Your task to perform on an android device: open app "Google Translate" (install if not already installed) Image 0: 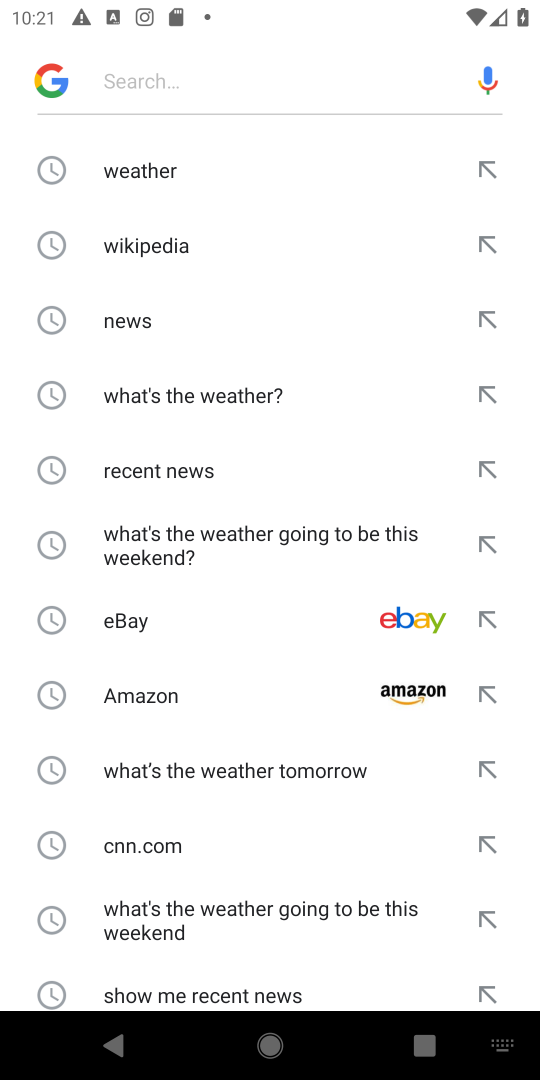
Step 0: press home button
Your task to perform on an android device: open app "Google Translate" (install if not already installed) Image 1: 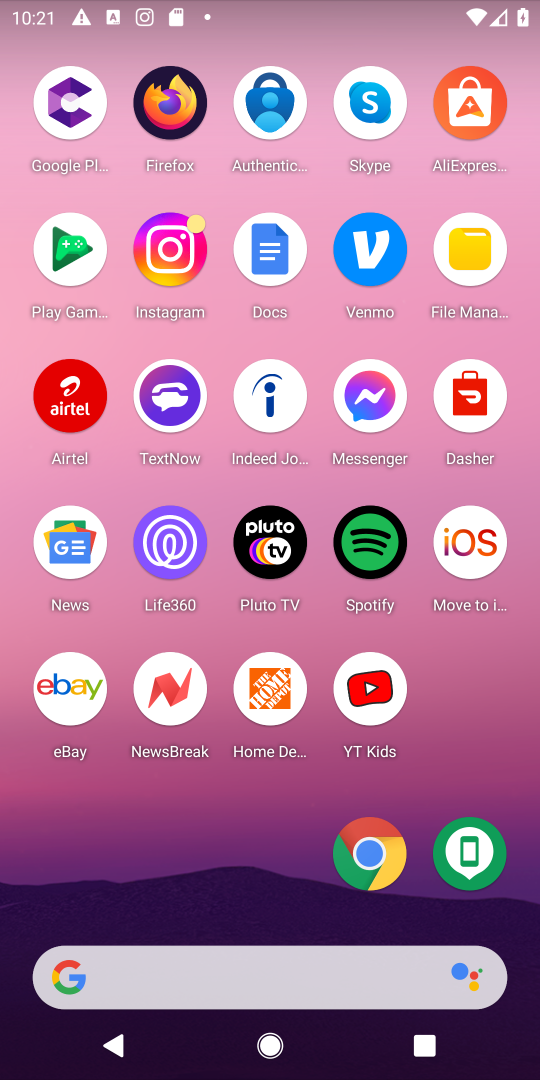
Step 1: drag from (221, 317) to (221, 100)
Your task to perform on an android device: open app "Google Translate" (install if not already installed) Image 2: 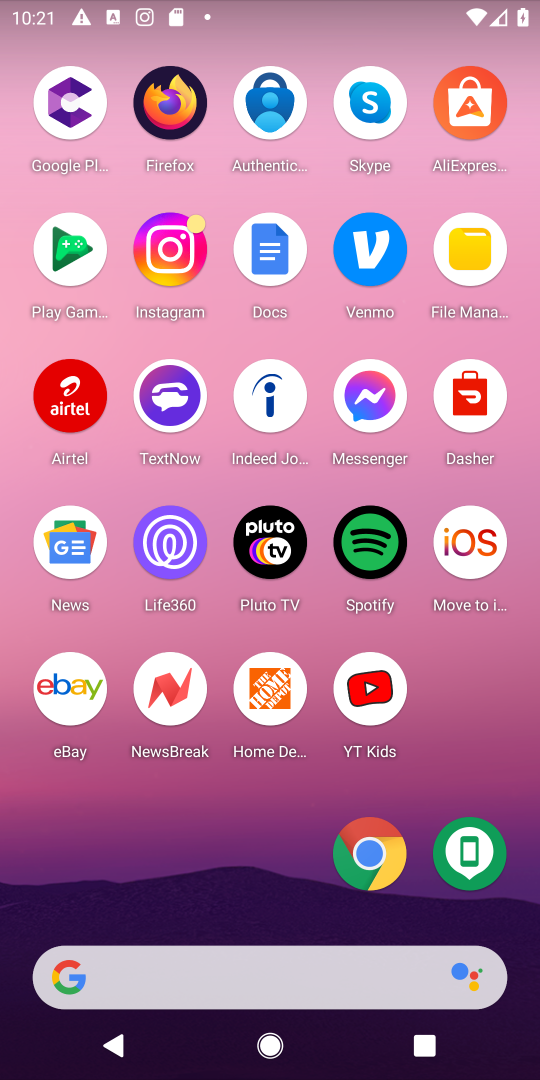
Step 2: drag from (192, 526) to (196, 118)
Your task to perform on an android device: open app "Google Translate" (install if not already installed) Image 3: 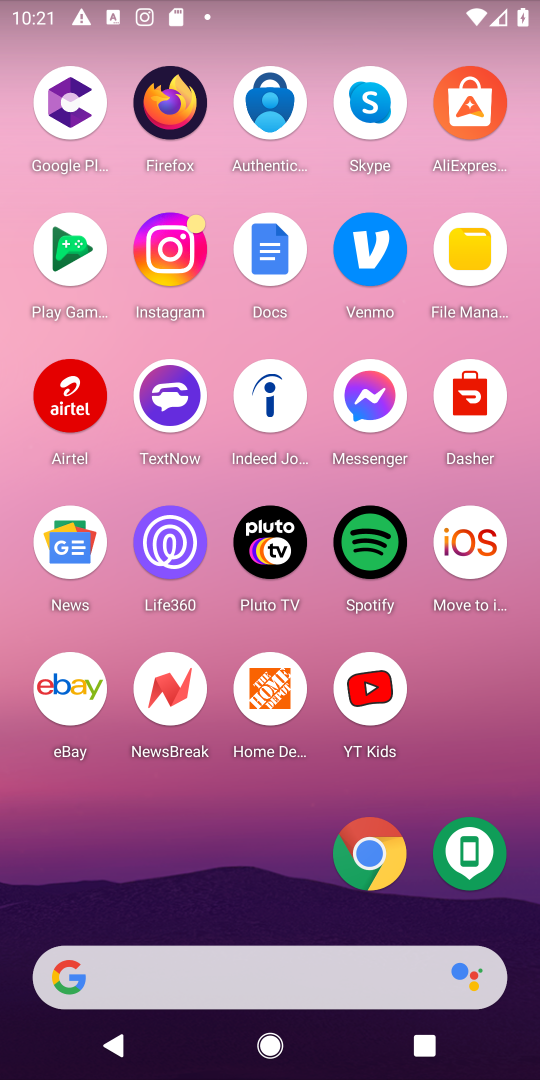
Step 3: drag from (216, 827) to (205, 109)
Your task to perform on an android device: open app "Google Translate" (install if not already installed) Image 4: 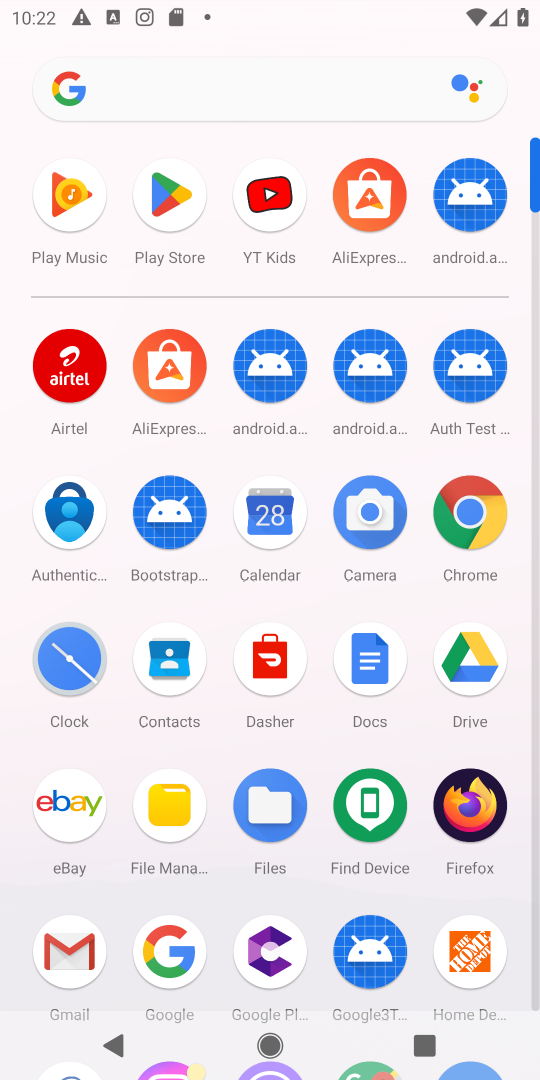
Step 4: click (174, 203)
Your task to perform on an android device: open app "Google Translate" (install if not already installed) Image 5: 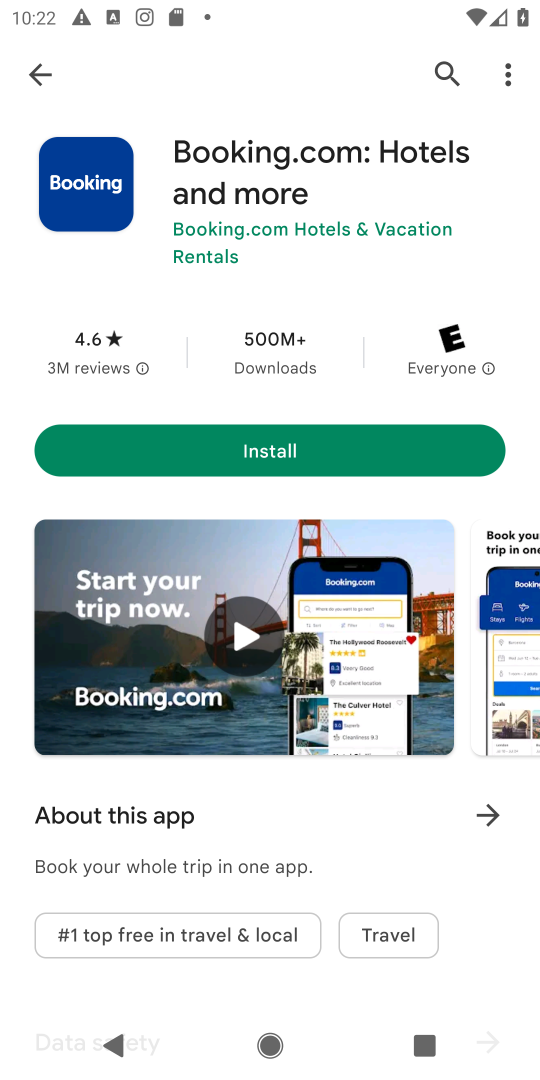
Step 5: click (35, 72)
Your task to perform on an android device: open app "Google Translate" (install if not already installed) Image 6: 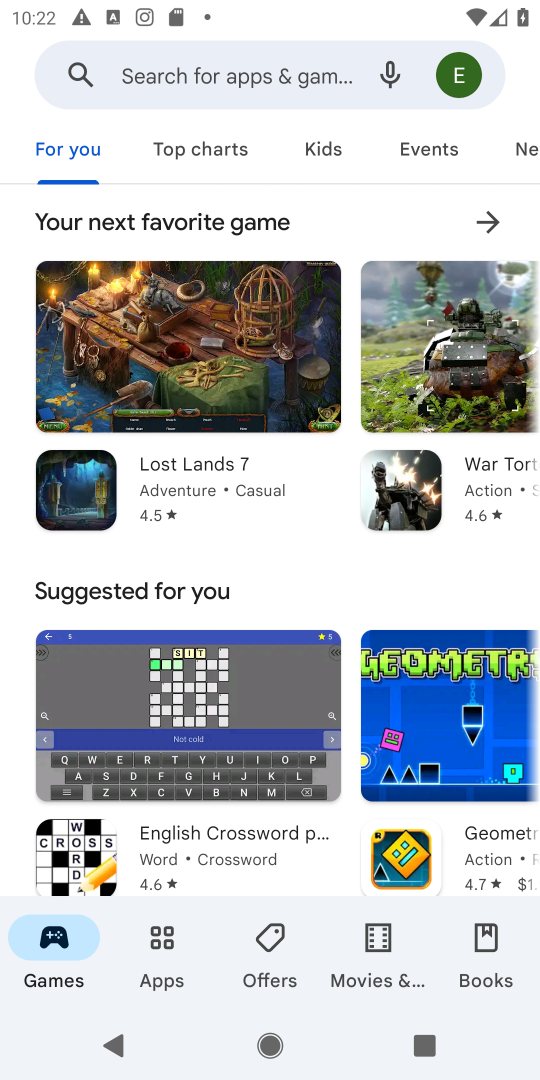
Step 6: click (240, 64)
Your task to perform on an android device: open app "Google Translate" (install if not already installed) Image 7: 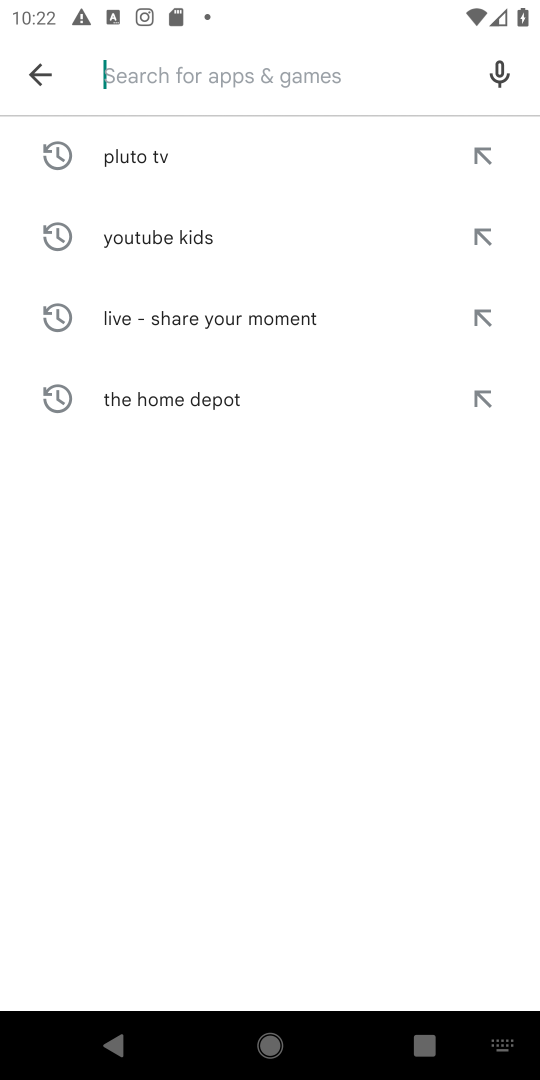
Step 7: type "Google Translate"
Your task to perform on an android device: open app "Google Translate" (install if not already installed) Image 8: 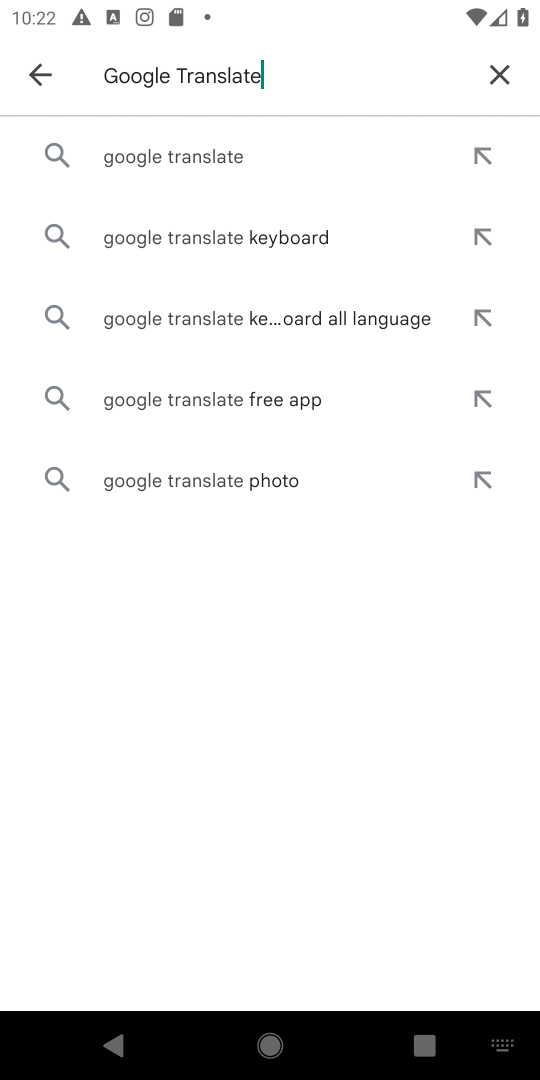
Step 8: click (180, 156)
Your task to perform on an android device: open app "Google Translate" (install if not already installed) Image 9: 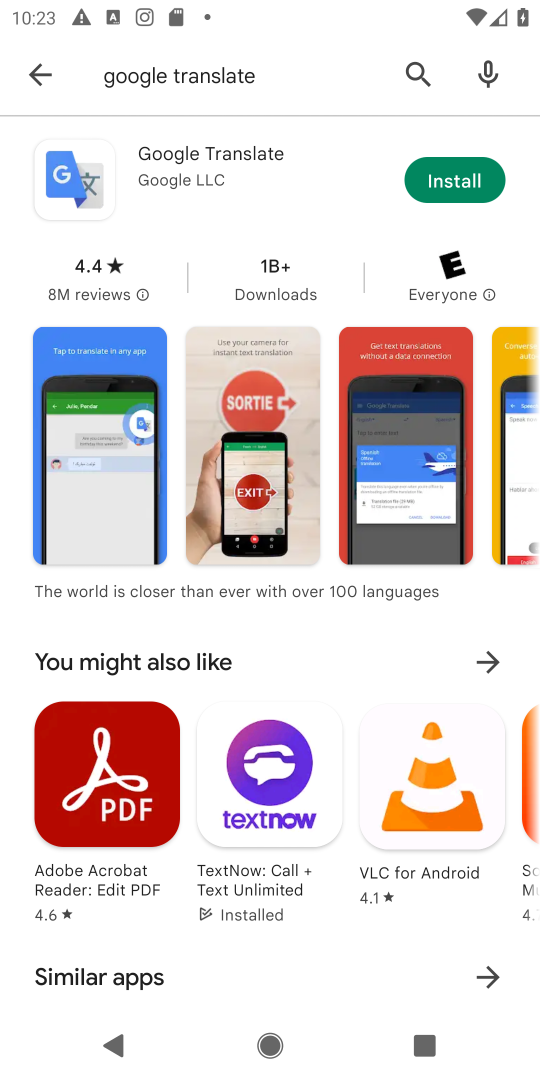
Step 9: click (444, 188)
Your task to perform on an android device: open app "Google Translate" (install if not already installed) Image 10: 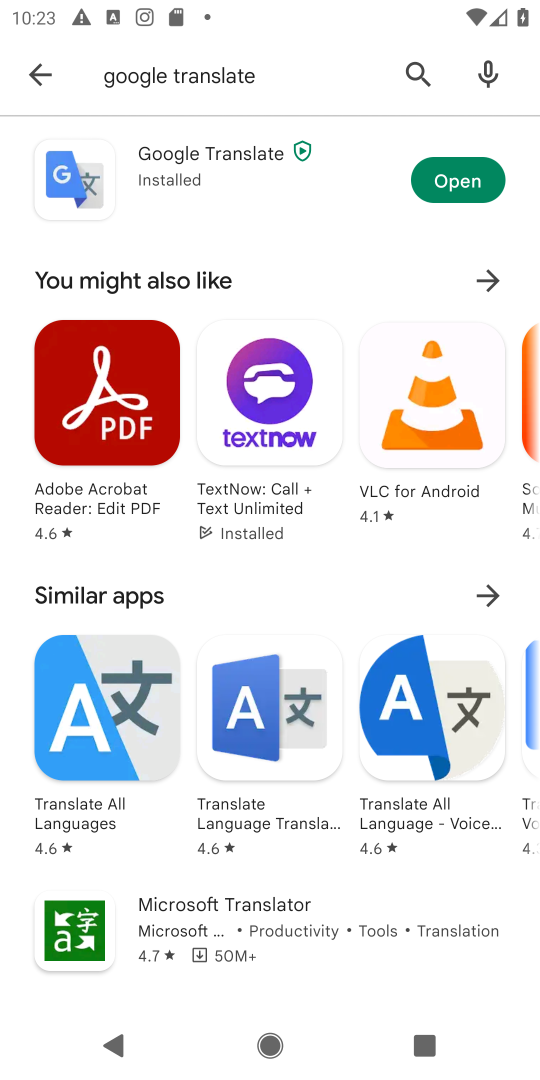
Step 10: click (442, 190)
Your task to perform on an android device: open app "Google Translate" (install if not already installed) Image 11: 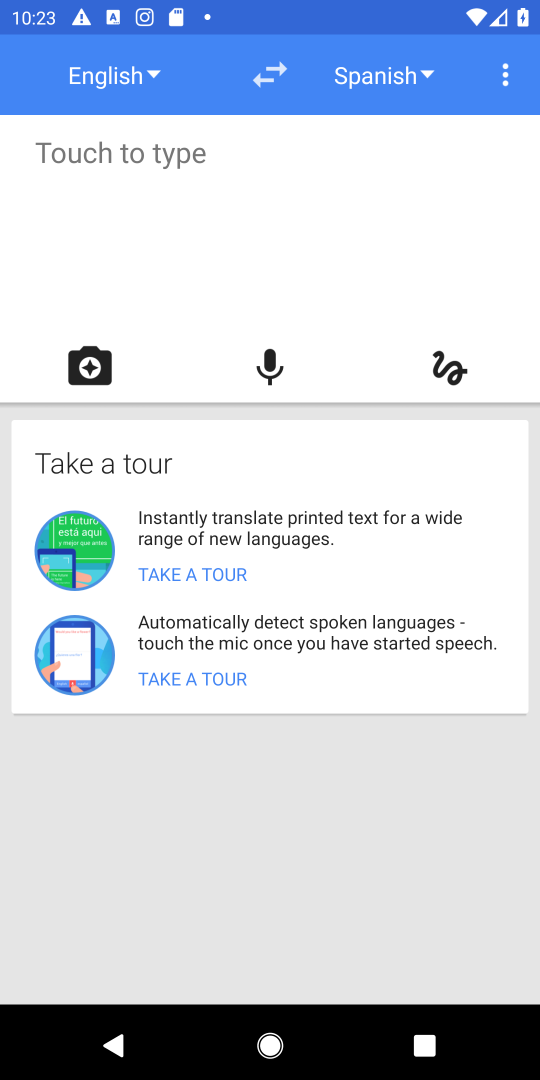
Step 11: task complete